Your task to perform on an android device: Show me productivity apps on the Play Store Image 0: 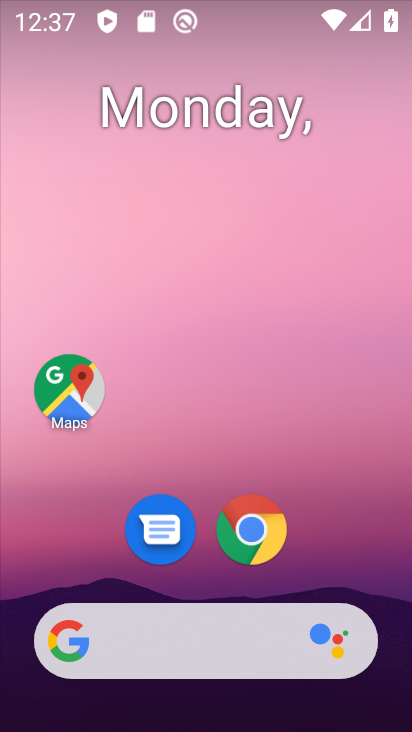
Step 0: drag from (216, 583) to (220, 222)
Your task to perform on an android device: Show me productivity apps on the Play Store Image 1: 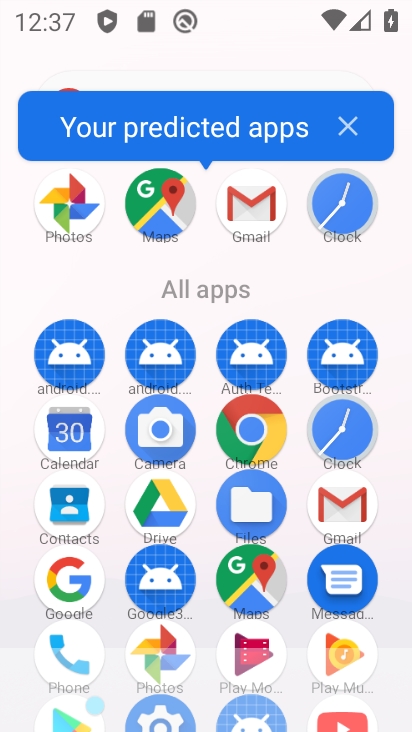
Step 1: drag from (205, 531) to (217, 331)
Your task to perform on an android device: Show me productivity apps on the Play Store Image 2: 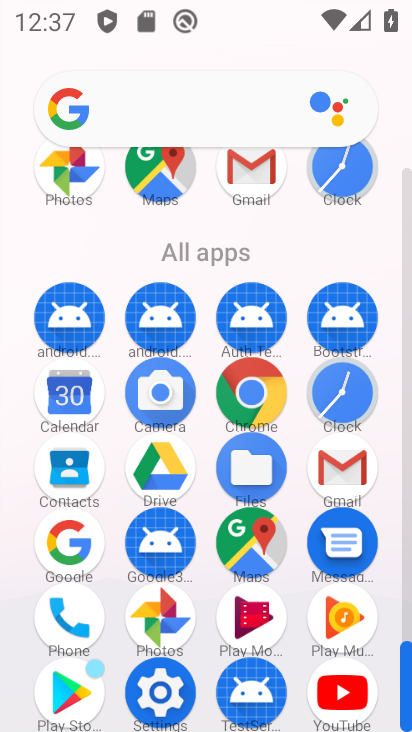
Step 2: click (68, 682)
Your task to perform on an android device: Show me productivity apps on the Play Store Image 3: 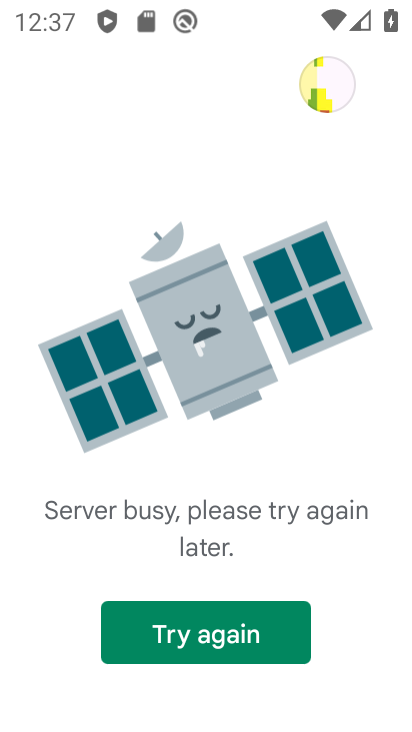
Step 3: task complete